Your task to perform on an android device: move an email to a new category in the gmail app Image 0: 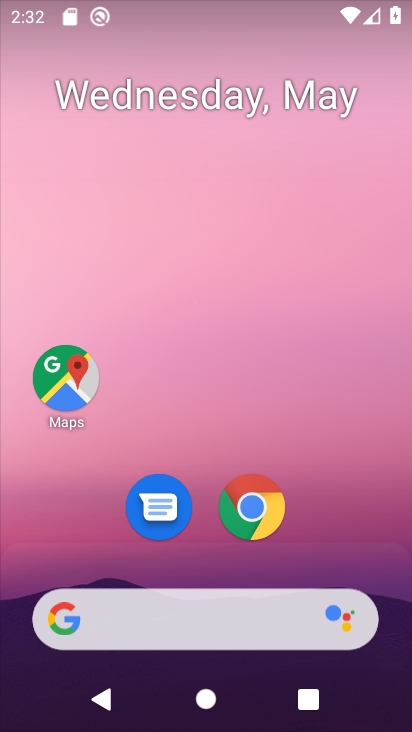
Step 0: drag from (201, 558) to (324, 81)
Your task to perform on an android device: move an email to a new category in the gmail app Image 1: 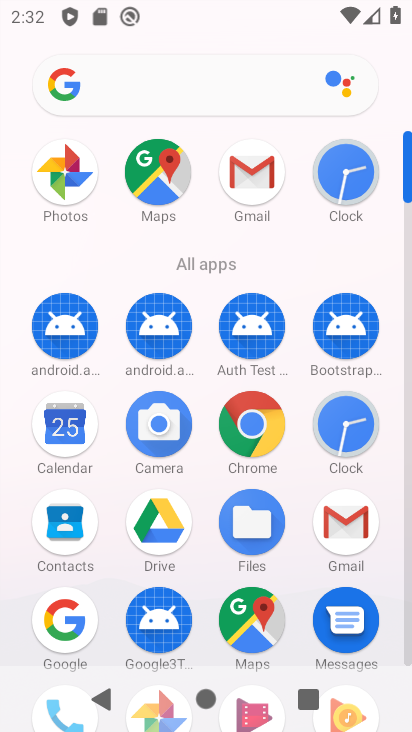
Step 1: click (339, 523)
Your task to perform on an android device: move an email to a new category in the gmail app Image 2: 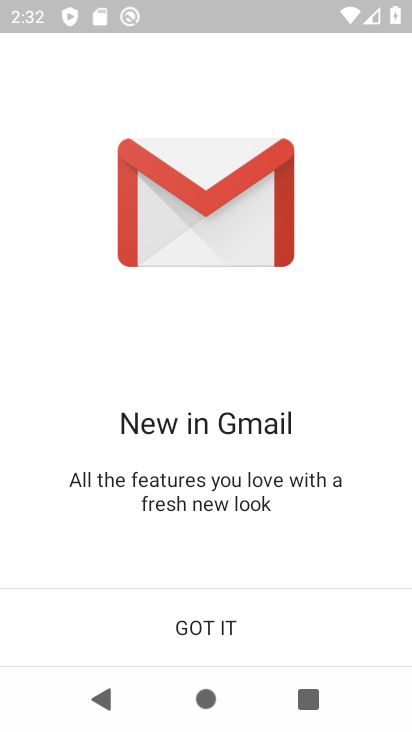
Step 2: click (210, 614)
Your task to perform on an android device: move an email to a new category in the gmail app Image 3: 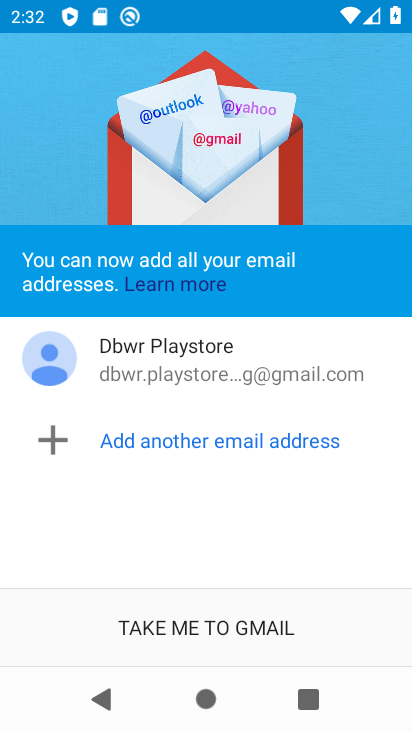
Step 3: click (222, 636)
Your task to perform on an android device: move an email to a new category in the gmail app Image 4: 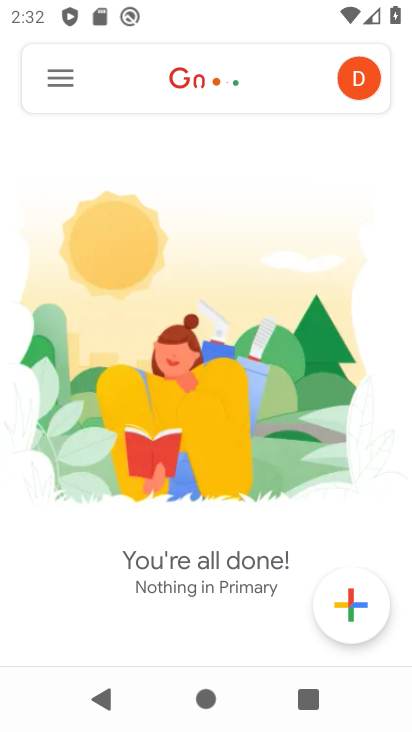
Step 4: click (63, 84)
Your task to perform on an android device: move an email to a new category in the gmail app Image 5: 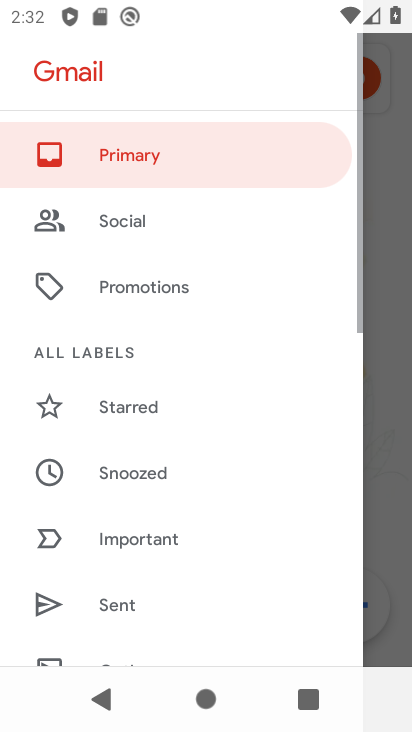
Step 5: drag from (178, 555) to (190, 119)
Your task to perform on an android device: move an email to a new category in the gmail app Image 6: 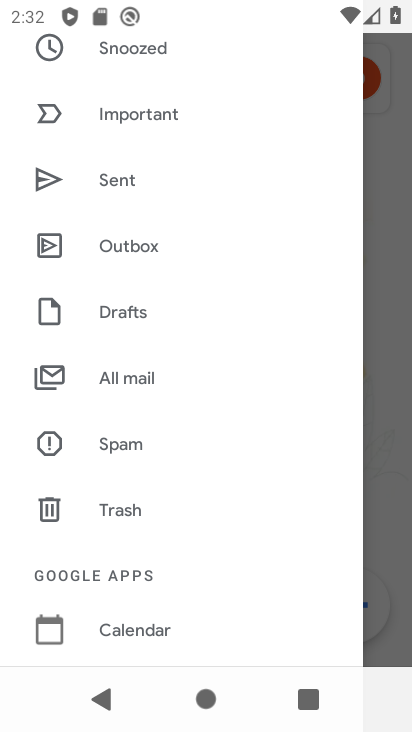
Step 6: drag from (188, 571) to (210, 471)
Your task to perform on an android device: move an email to a new category in the gmail app Image 7: 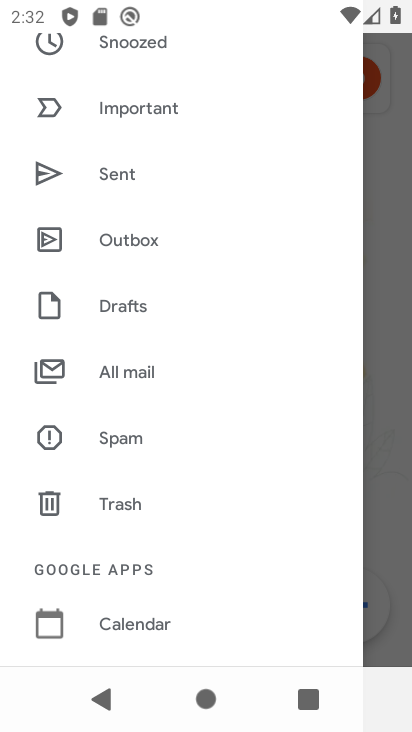
Step 7: click (124, 377)
Your task to perform on an android device: move an email to a new category in the gmail app Image 8: 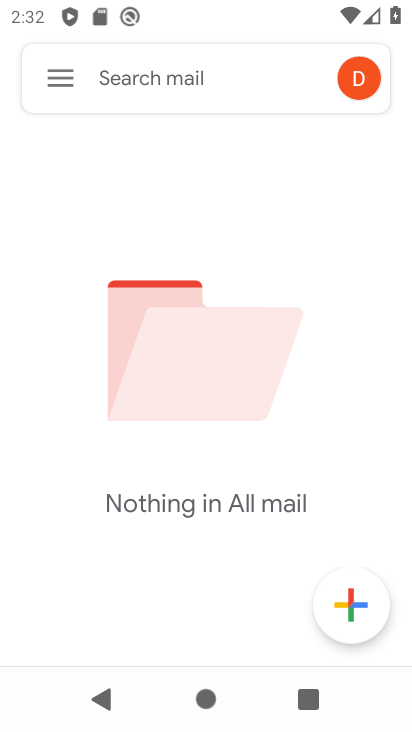
Step 8: task complete